Your task to perform on an android device: change the clock display to analog Image 0: 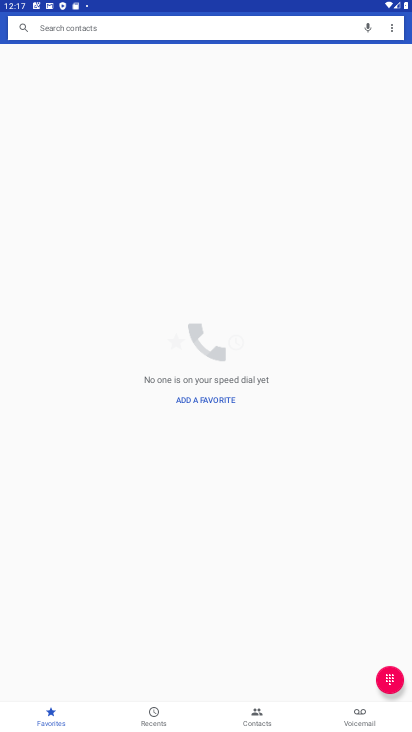
Step 0: press home button
Your task to perform on an android device: change the clock display to analog Image 1: 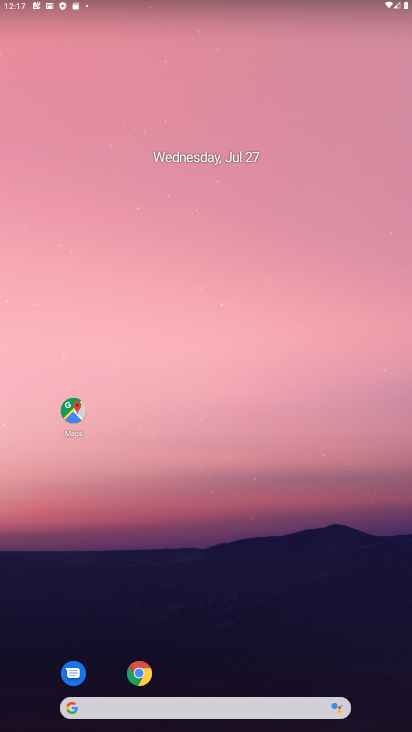
Step 1: drag from (230, 654) to (221, 284)
Your task to perform on an android device: change the clock display to analog Image 2: 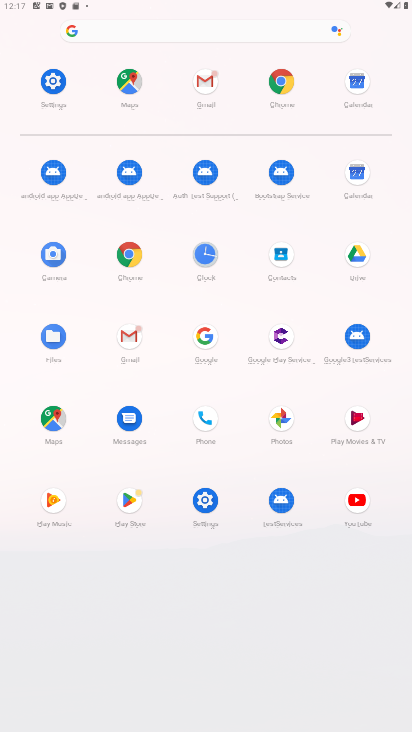
Step 2: click (206, 252)
Your task to perform on an android device: change the clock display to analog Image 3: 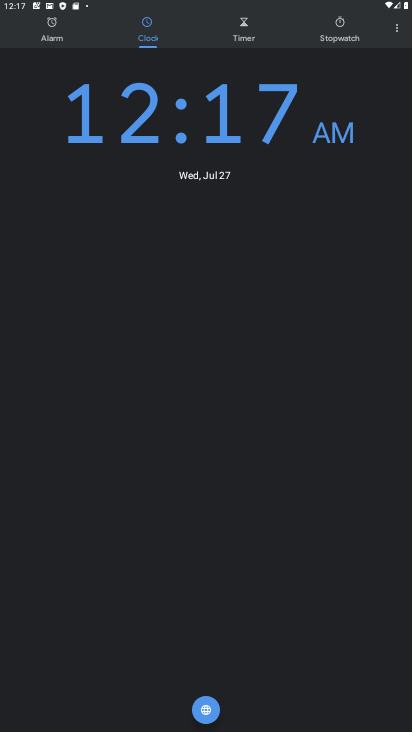
Step 3: click (396, 27)
Your task to perform on an android device: change the clock display to analog Image 4: 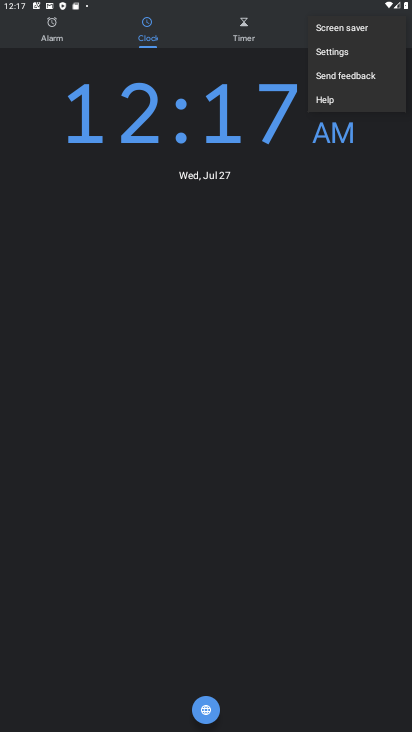
Step 4: click (341, 55)
Your task to perform on an android device: change the clock display to analog Image 5: 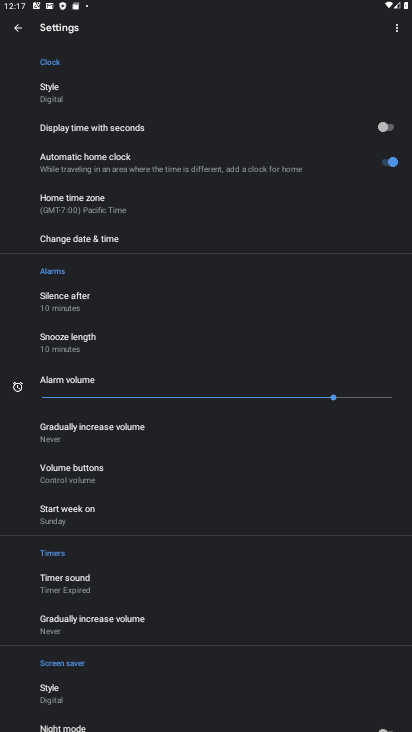
Step 5: click (63, 97)
Your task to perform on an android device: change the clock display to analog Image 6: 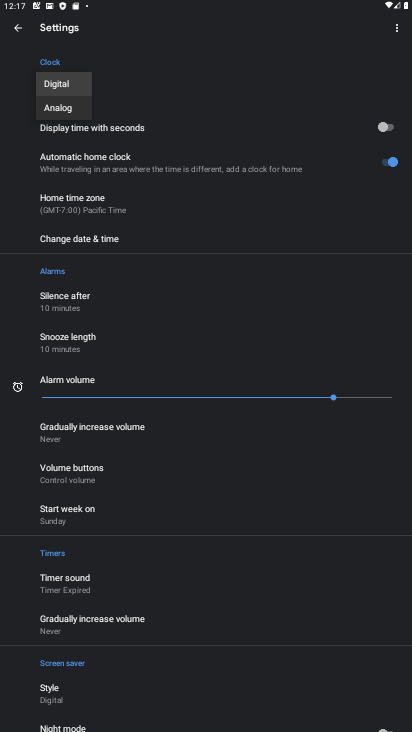
Step 6: click (58, 105)
Your task to perform on an android device: change the clock display to analog Image 7: 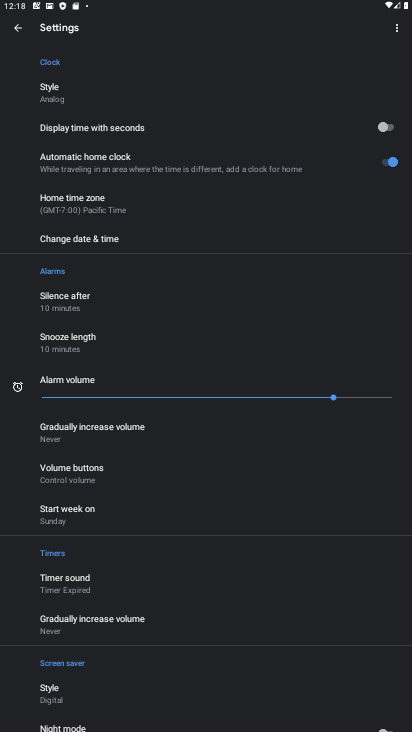
Step 7: task complete